Your task to perform on an android device: Open Wikipedia Image 0: 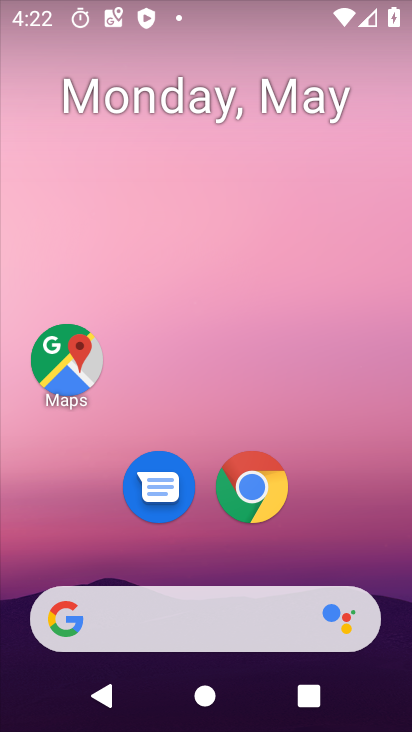
Step 0: click (248, 491)
Your task to perform on an android device: Open Wikipedia Image 1: 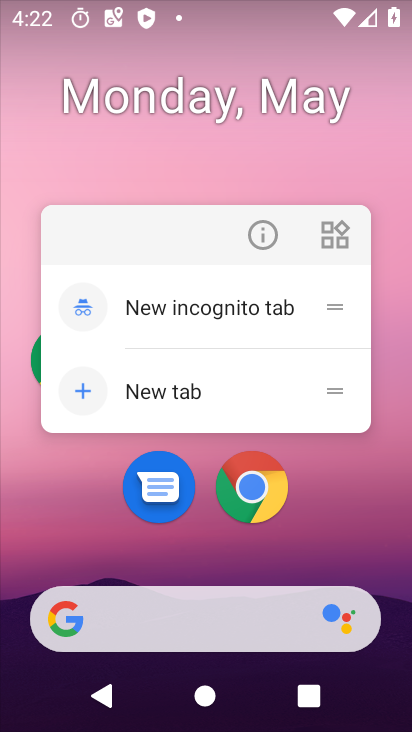
Step 1: click (248, 491)
Your task to perform on an android device: Open Wikipedia Image 2: 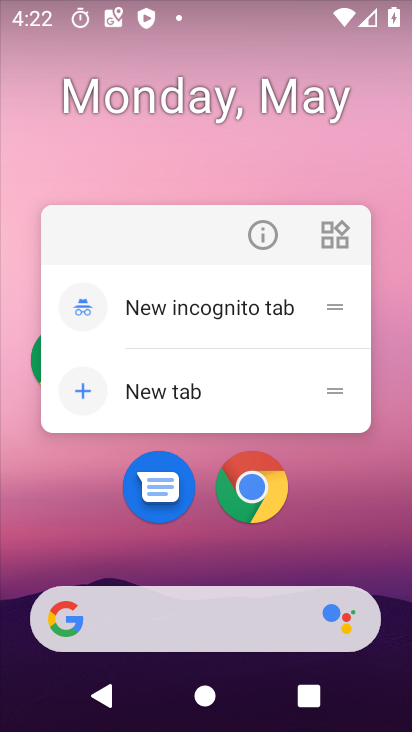
Step 2: click (262, 513)
Your task to perform on an android device: Open Wikipedia Image 3: 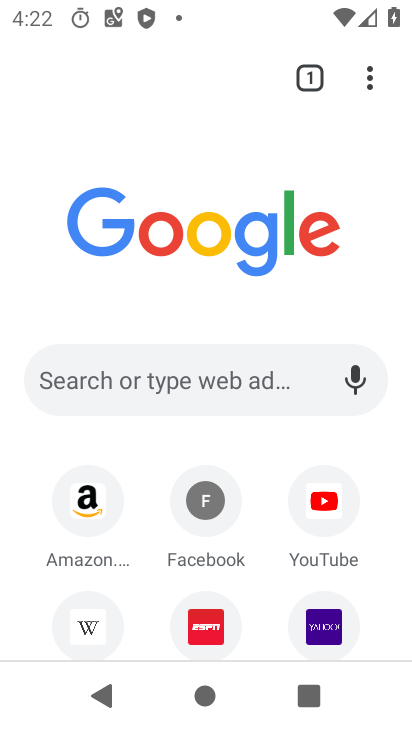
Step 3: click (76, 623)
Your task to perform on an android device: Open Wikipedia Image 4: 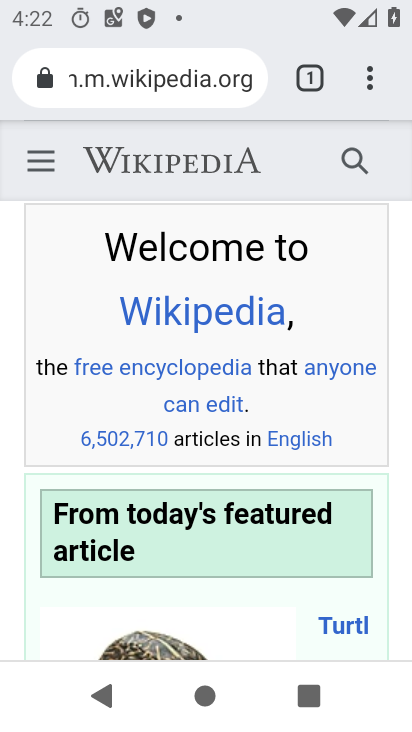
Step 4: task complete